Your task to perform on an android device: turn off airplane mode Image 0: 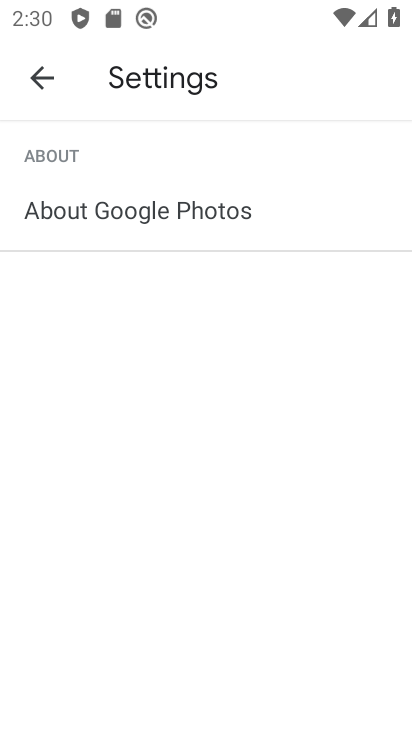
Step 0: drag from (367, 22) to (298, 614)
Your task to perform on an android device: turn off airplane mode Image 1: 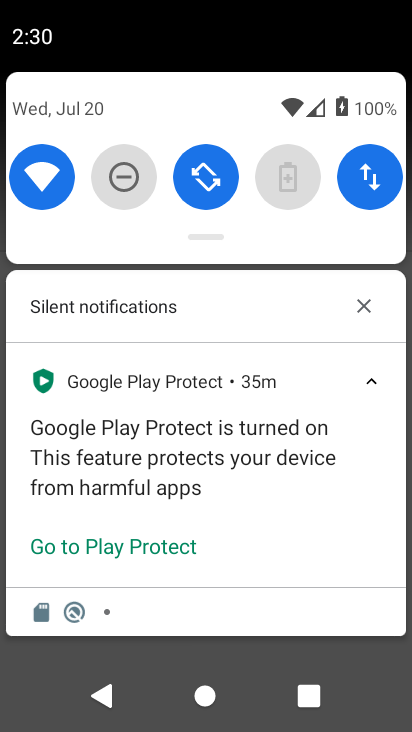
Step 1: task complete